Your task to perform on an android device: turn on improve location accuracy Image 0: 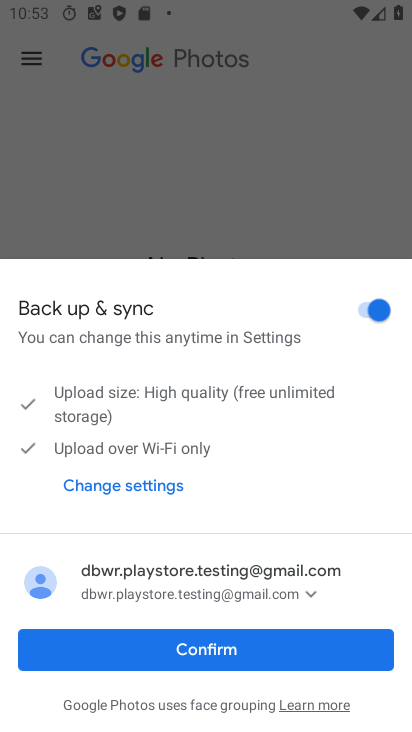
Step 0: press home button
Your task to perform on an android device: turn on improve location accuracy Image 1: 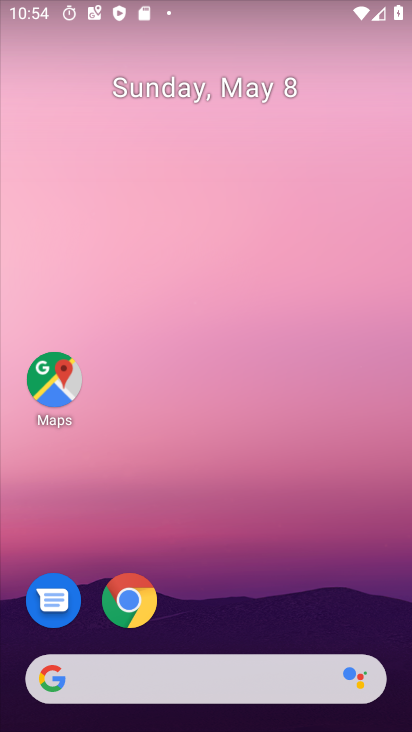
Step 1: drag from (29, 606) to (166, 244)
Your task to perform on an android device: turn on improve location accuracy Image 2: 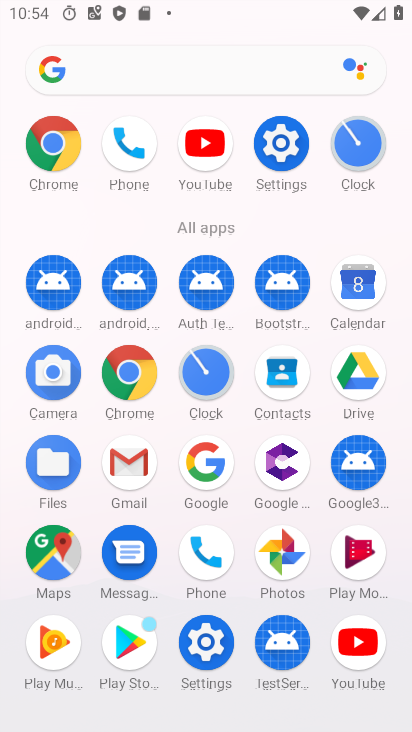
Step 2: click (260, 154)
Your task to perform on an android device: turn on improve location accuracy Image 3: 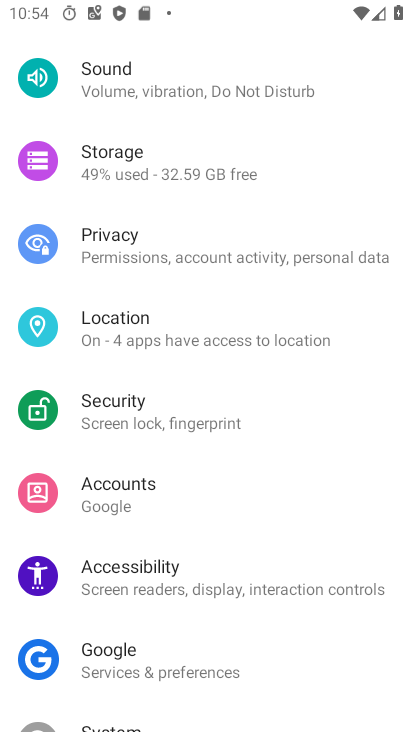
Step 3: click (144, 317)
Your task to perform on an android device: turn on improve location accuracy Image 4: 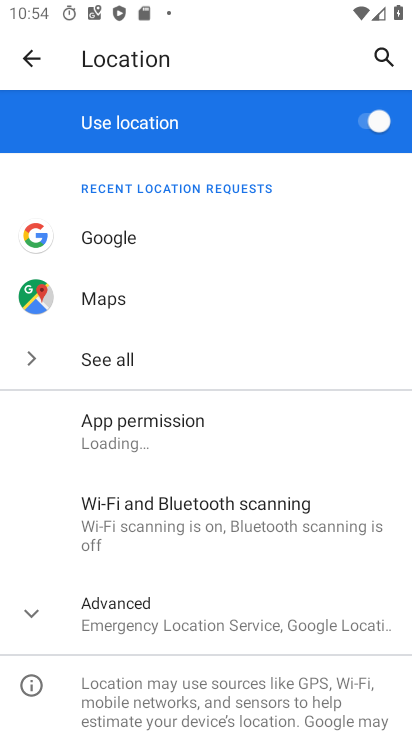
Step 4: click (207, 609)
Your task to perform on an android device: turn on improve location accuracy Image 5: 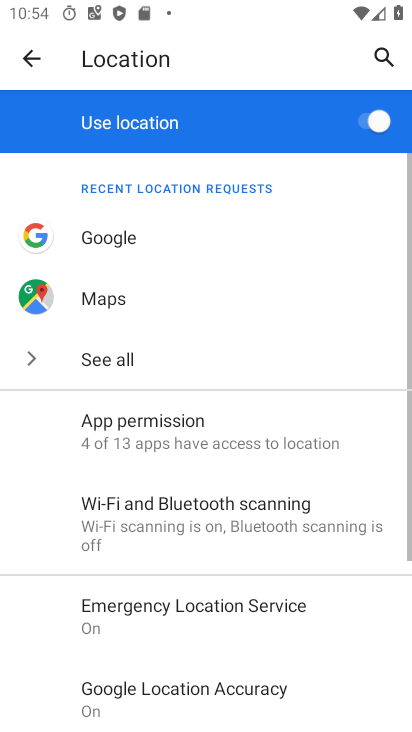
Step 5: drag from (189, 681) to (275, 247)
Your task to perform on an android device: turn on improve location accuracy Image 6: 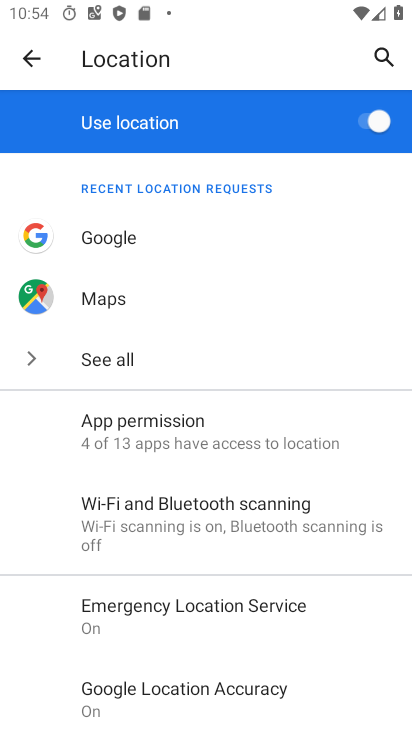
Step 6: click (179, 702)
Your task to perform on an android device: turn on improve location accuracy Image 7: 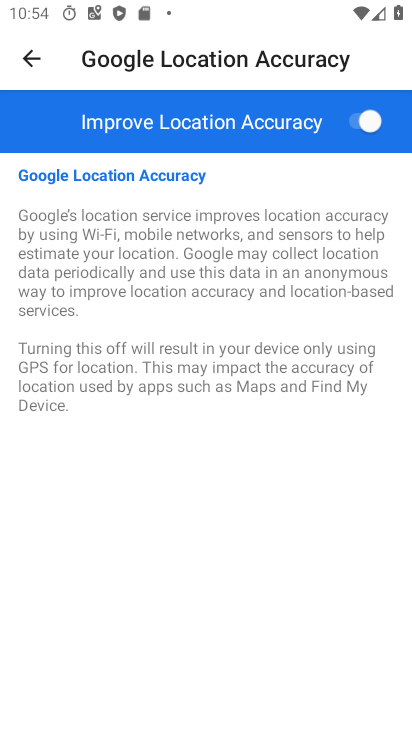
Step 7: click (373, 115)
Your task to perform on an android device: turn on improve location accuracy Image 8: 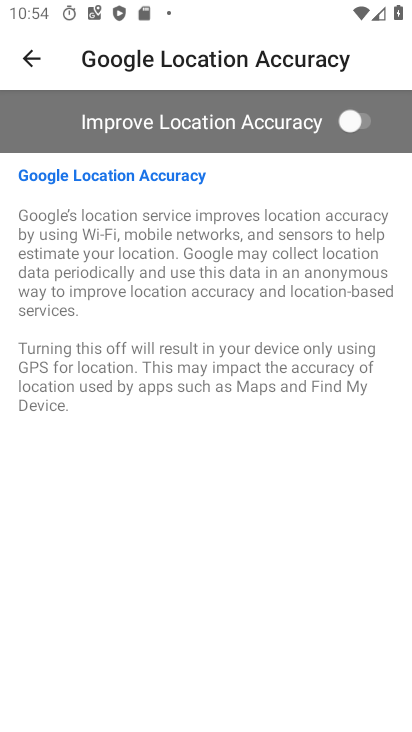
Step 8: task complete